Your task to perform on an android device: star an email in the gmail app Image 0: 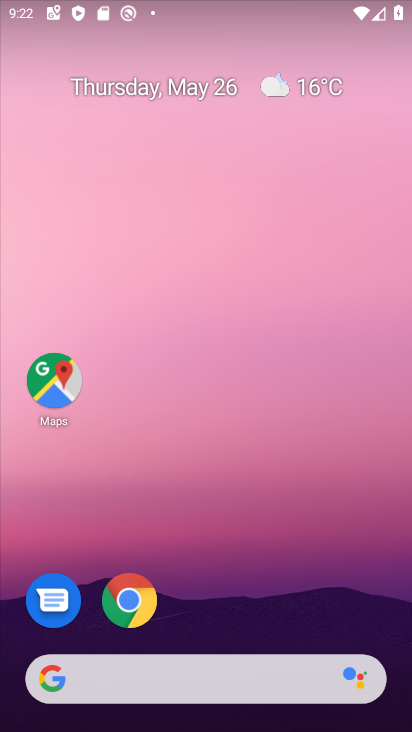
Step 0: drag from (209, 633) to (252, 82)
Your task to perform on an android device: star an email in the gmail app Image 1: 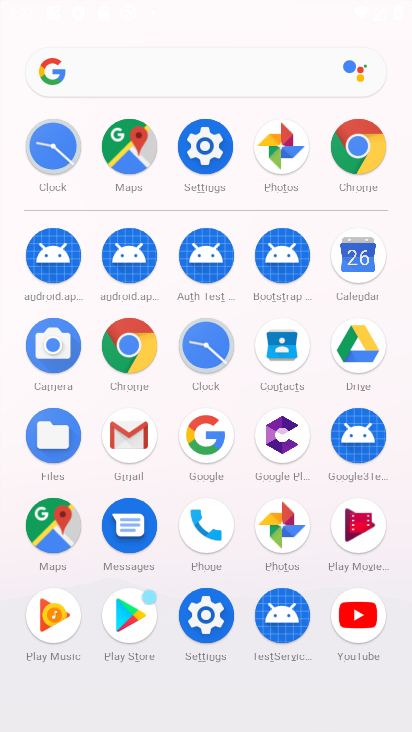
Step 1: drag from (294, 352) to (402, 21)
Your task to perform on an android device: star an email in the gmail app Image 2: 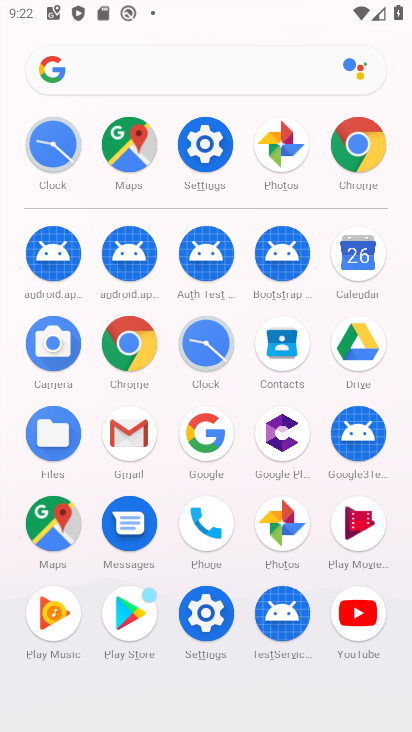
Step 2: click (141, 434)
Your task to perform on an android device: star an email in the gmail app Image 3: 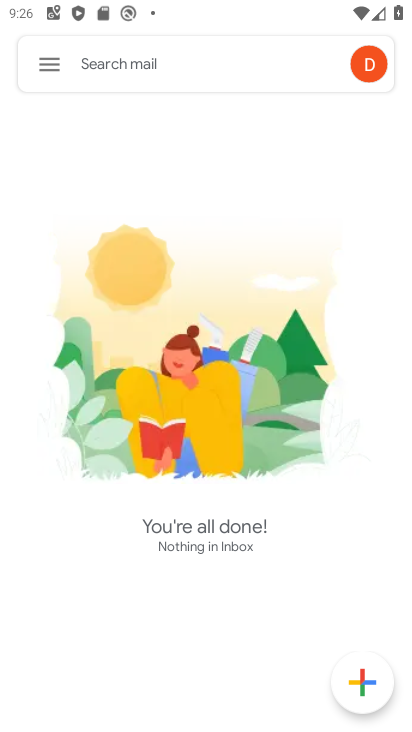
Step 3: task complete